Your task to perform on an android device: Open Yahoo.com Image 0: 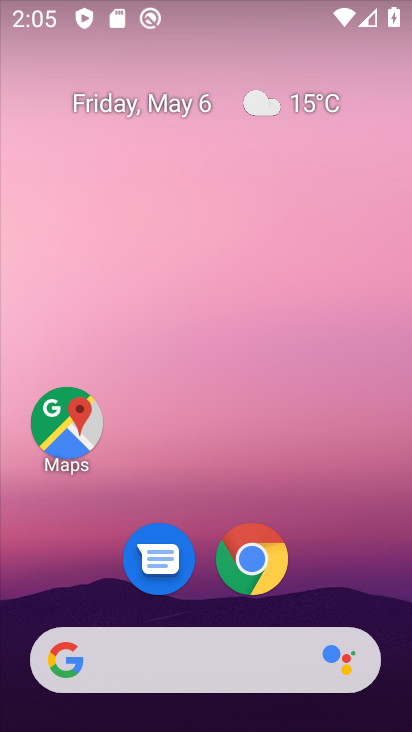
Step 0: click (258, 564)
Your task to perform on an android device: Open Yahoo.com Image 1: 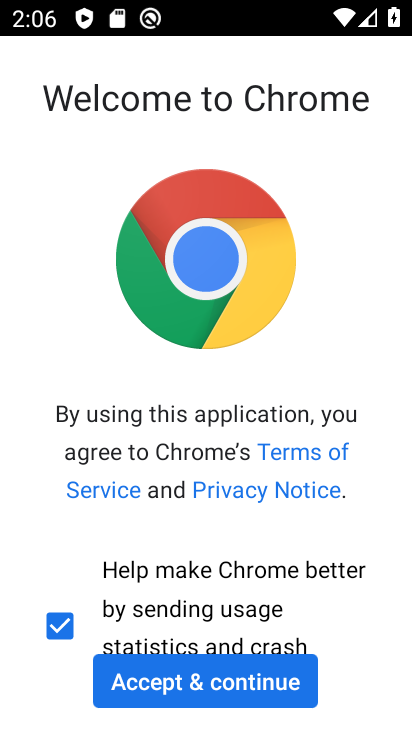
Step 1: click (146, 680)
Your task to perform on an android device: Open Yahoo.com Image 2: 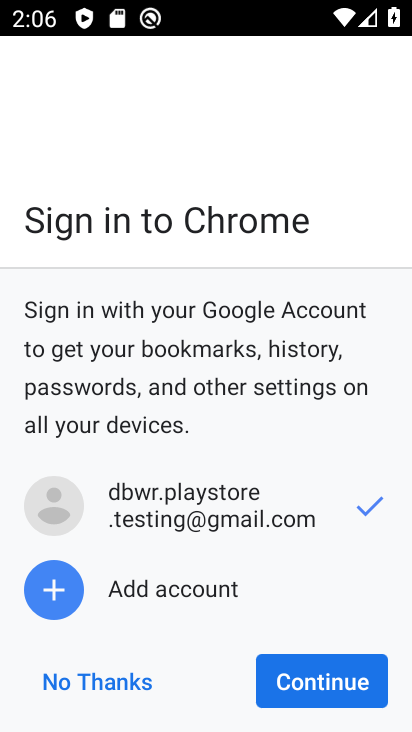
Step 2: click (327, 673)
Your task to perform on an android device: Open Yahoo.com Image 3: 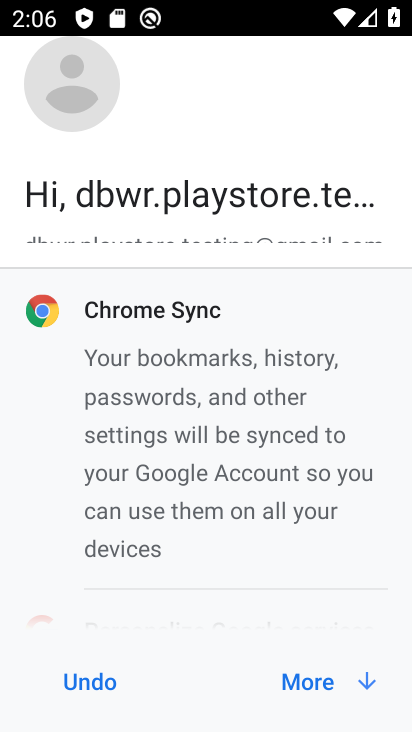
Step 3: click (327, 673)
Your task to perform on an android device: Open Yahoo.com Image 4: 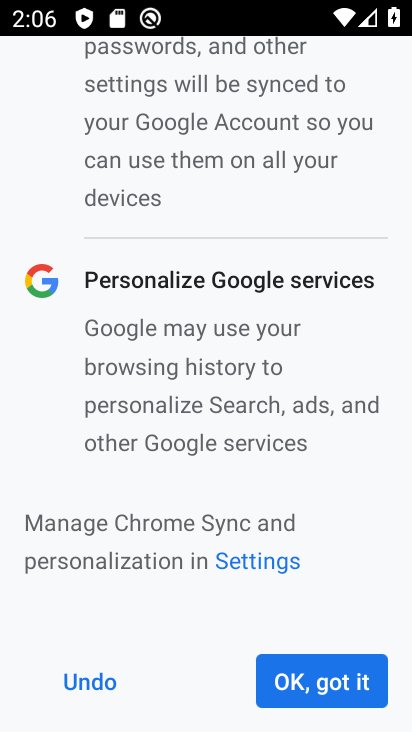
Step 4: click (327, 673)
Your task to perform on an android device: Open Yahoo.com Image 5: 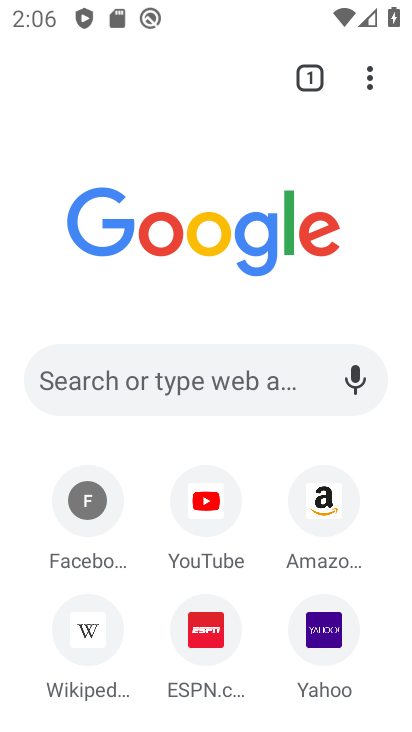
Step 5: click (323, 637)
Your task to perform on an android device: Open Yahoo.com Image 6: 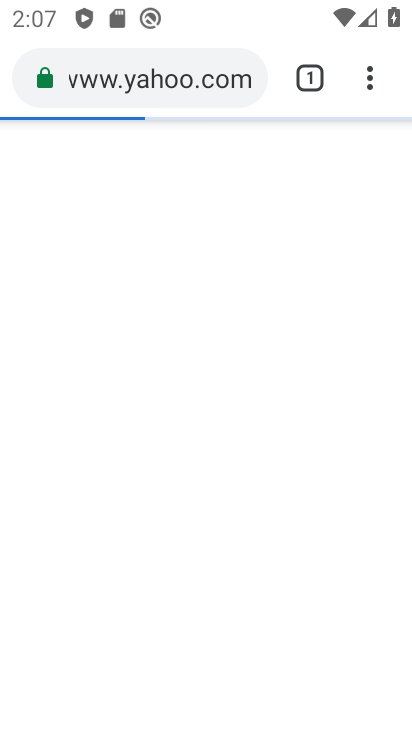
Step 6: task complete